Your task to perform on an android device: Install the Starbucks app Image 0: 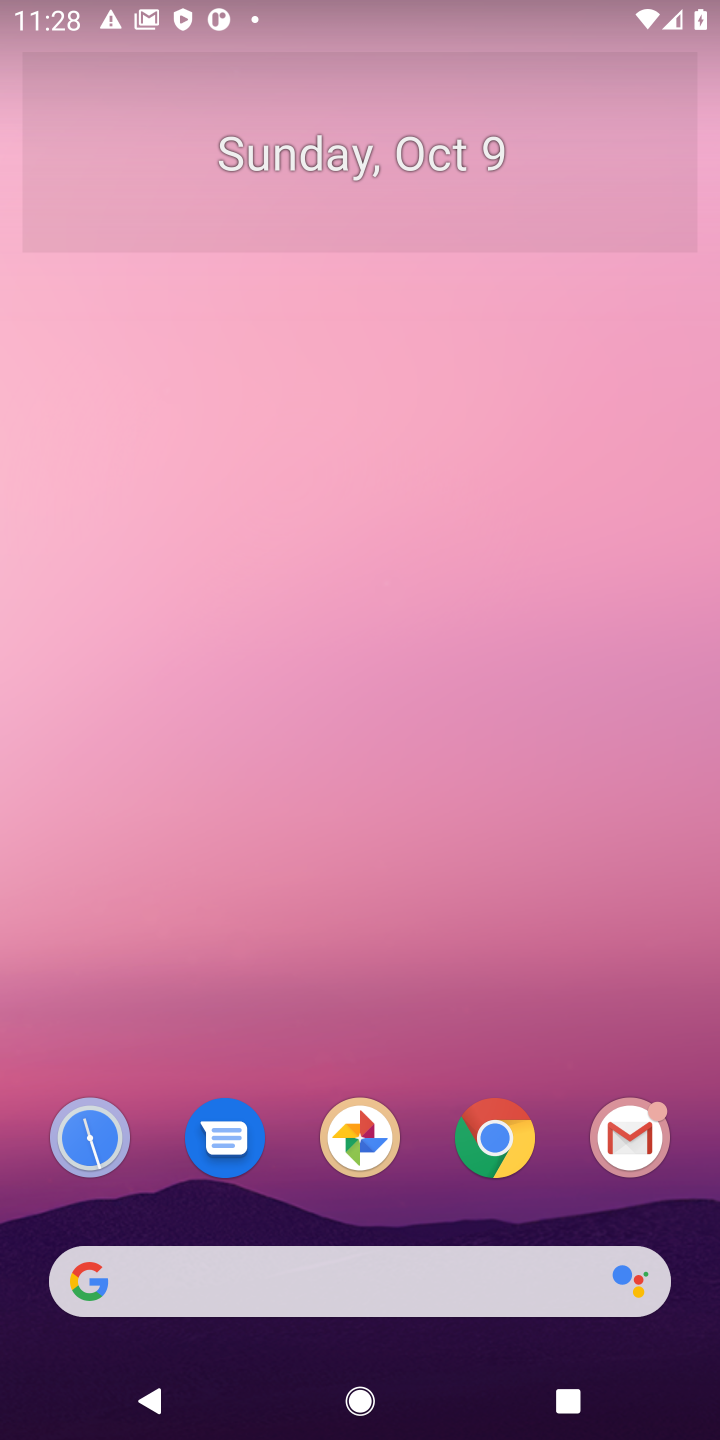
Step 0: drag from (393, 989) to (286, 18)
Your task to perform on an android device: Install the Starbucks app Image 1: 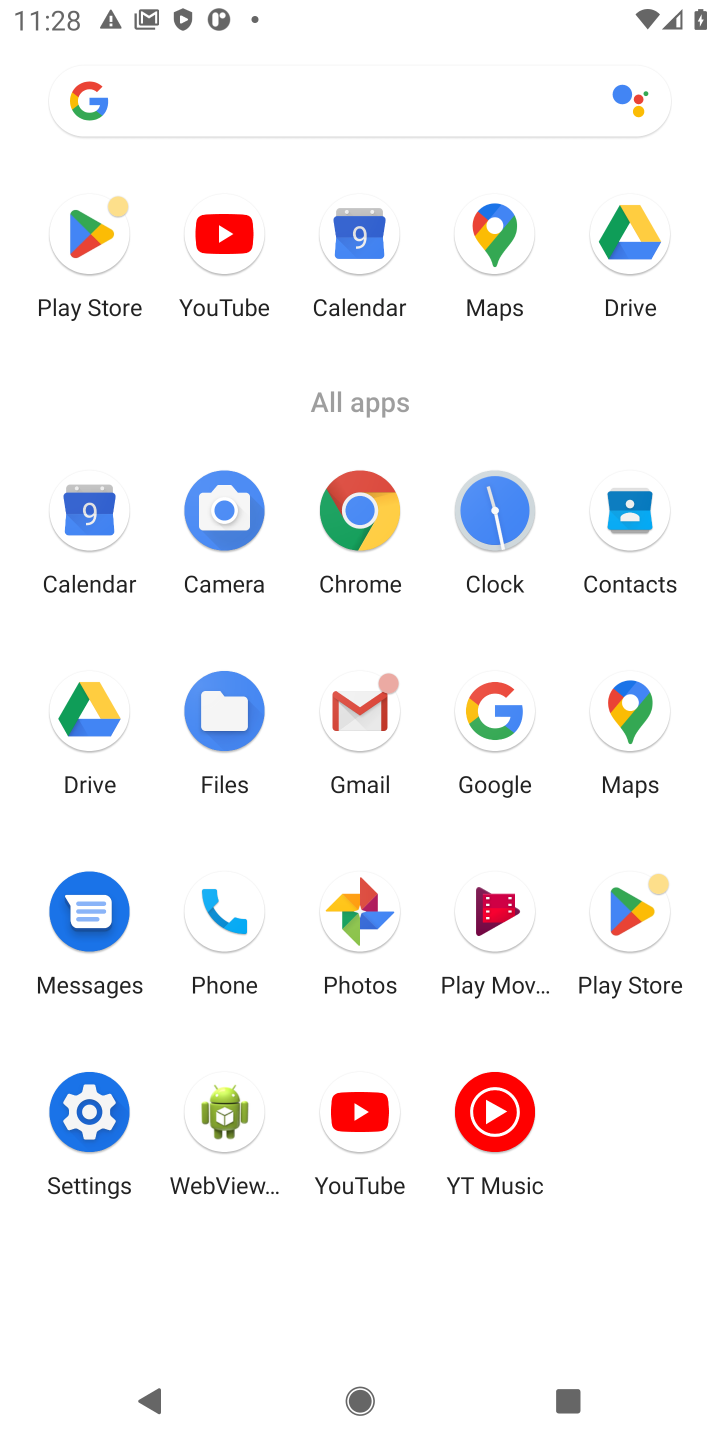
Step 1: click (618, 922)
Your task to perform on an android device: Install the Starbucks app Image 2: 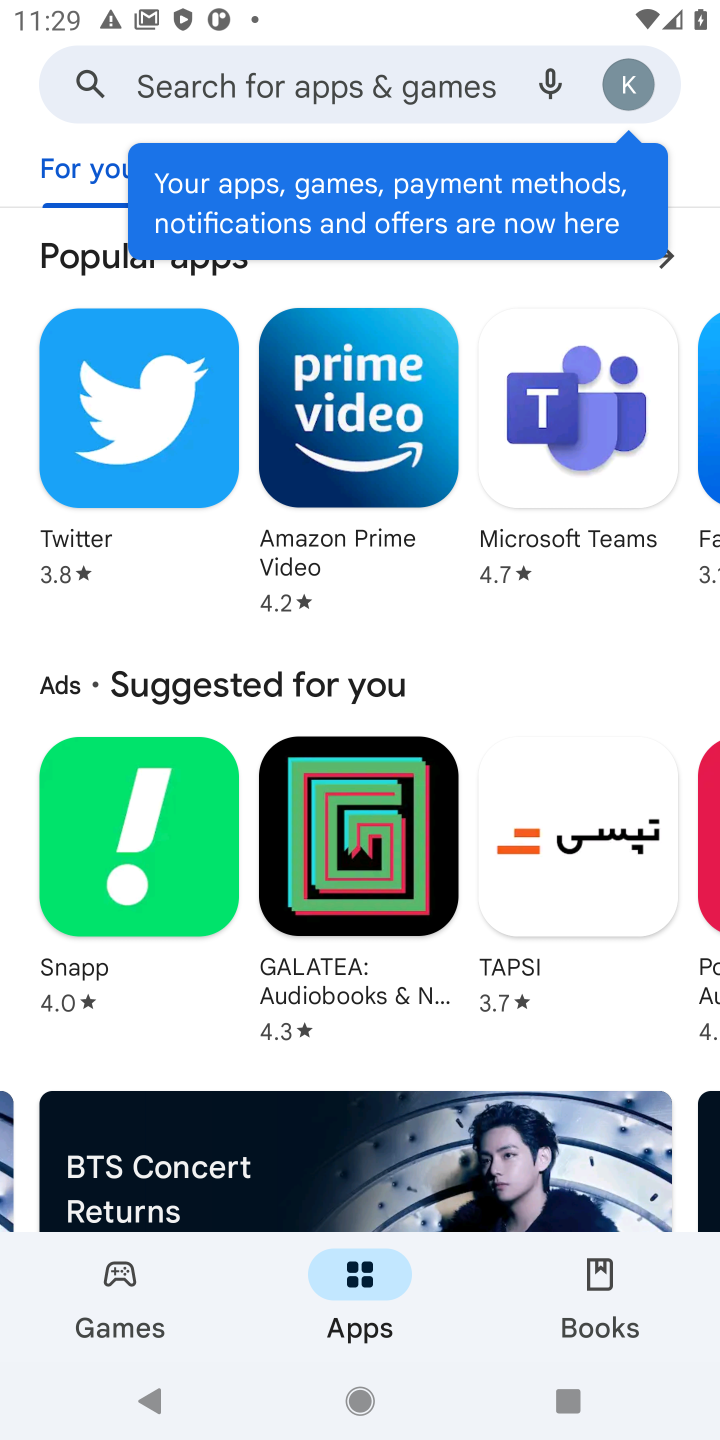
Step 2: click (347, 78)
Your task to perform on an android device: Install the Starbucks app Image 3: 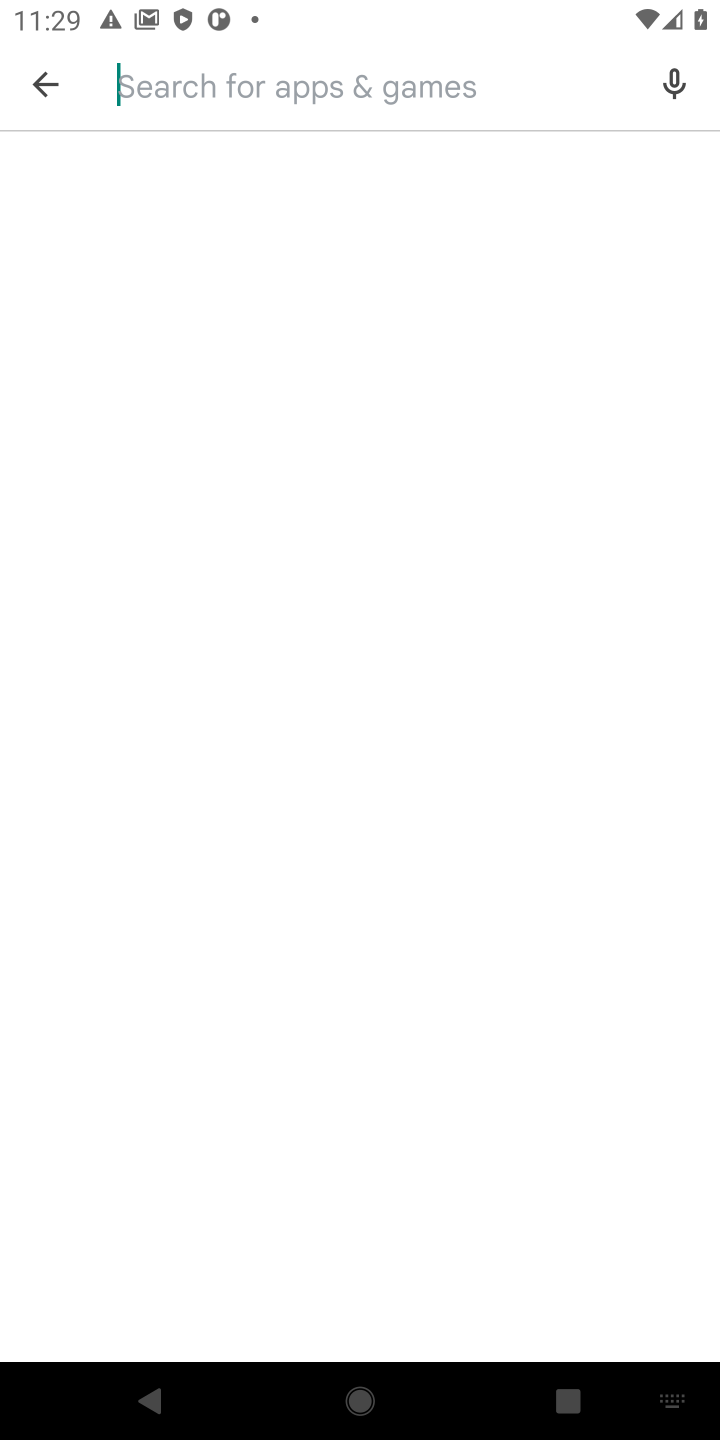
Step 3: type "starbucks "
Your task to perform on an android device: Install the Starbucks app Image 4: 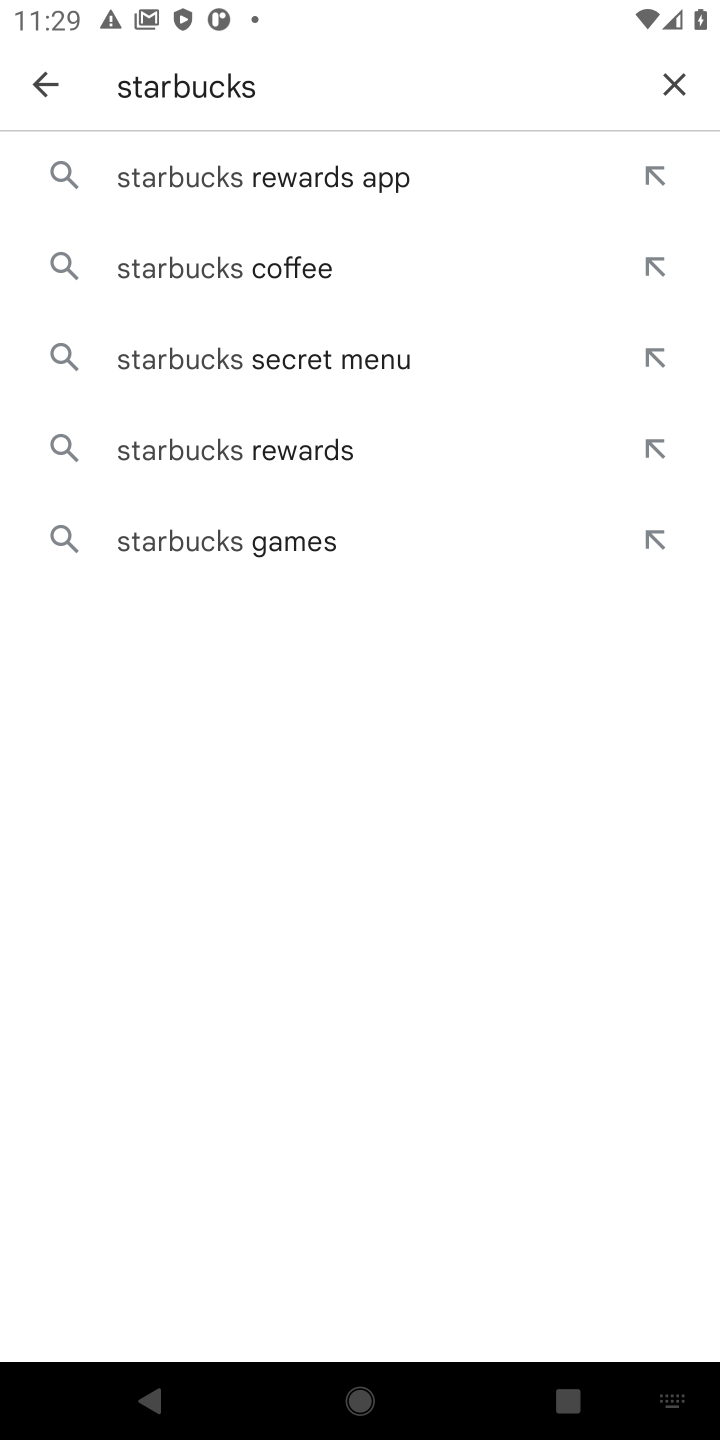
Step 4: press enter
Your task to perform on an android device: Install the Starbucks app Image 5: 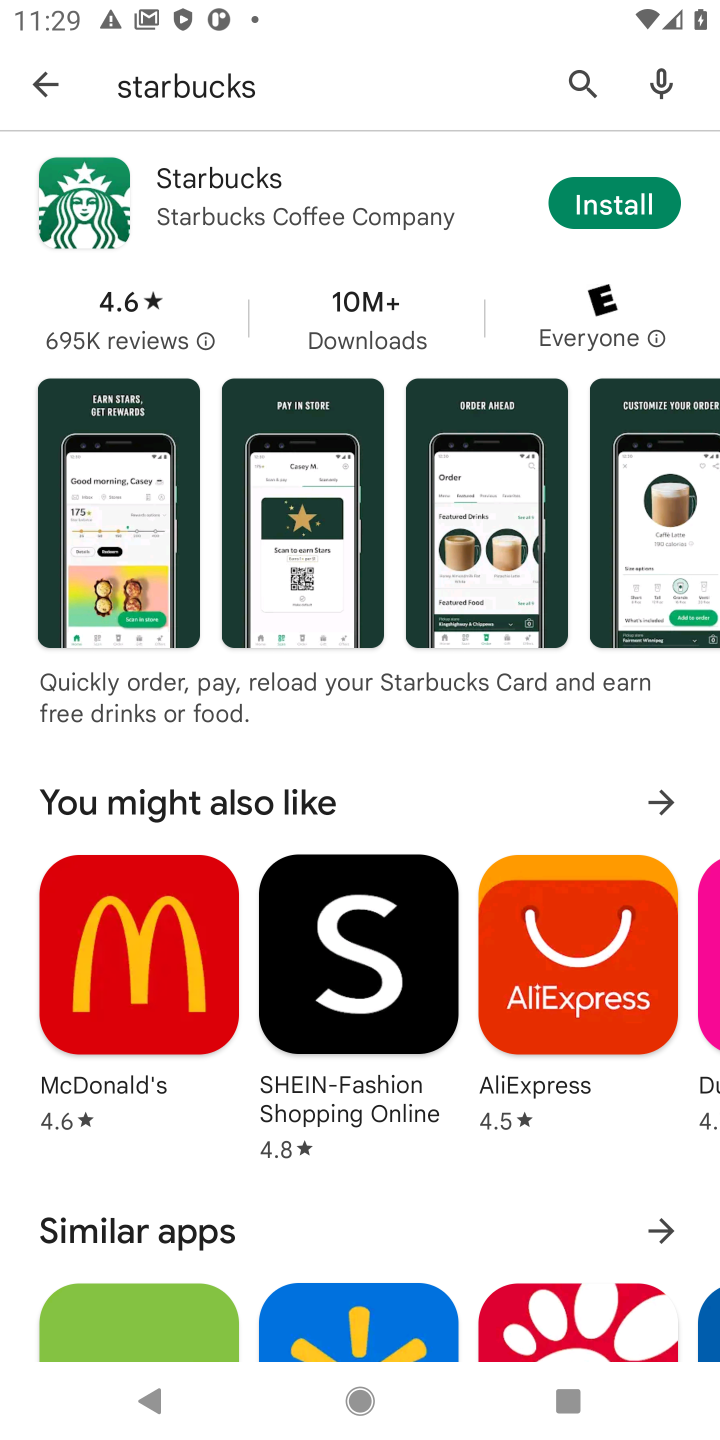
Step 5: click (623, 207)
Your task to perform on an android device: Install the Starbucks app Image 6: 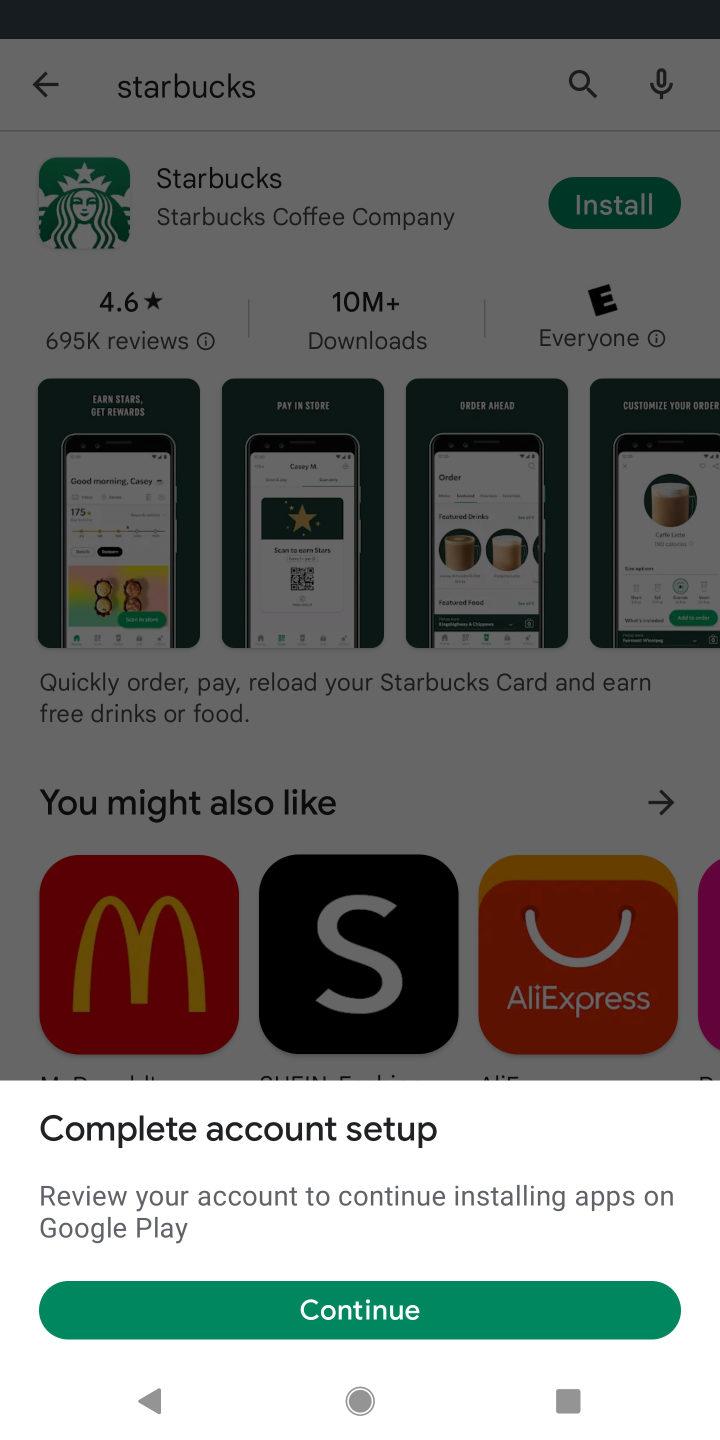
Step 6: click (380, 1293)
Your task to perform on an android device: Install the Starbucks app Image 7: 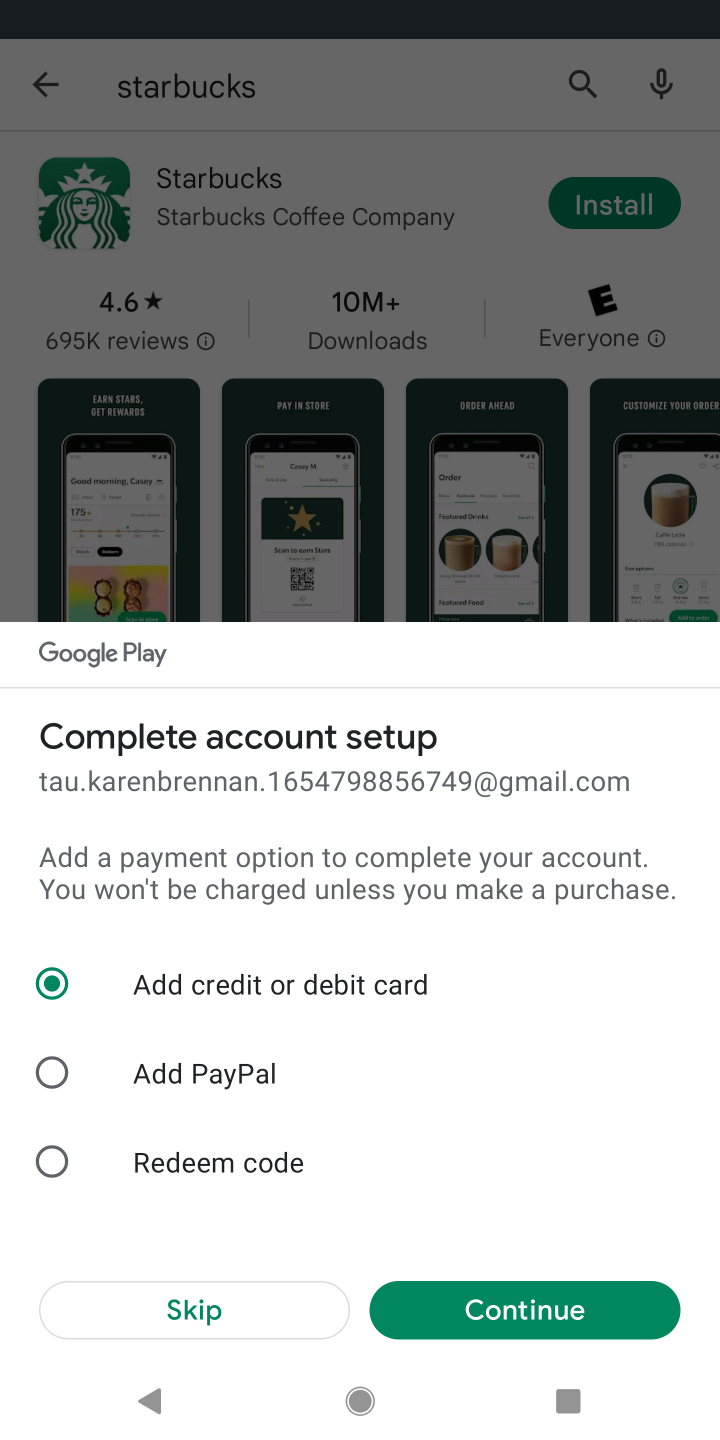
Step 7: click (312, 1291)
Your task to perform on an android device: Install the Starbucks app Image 8: 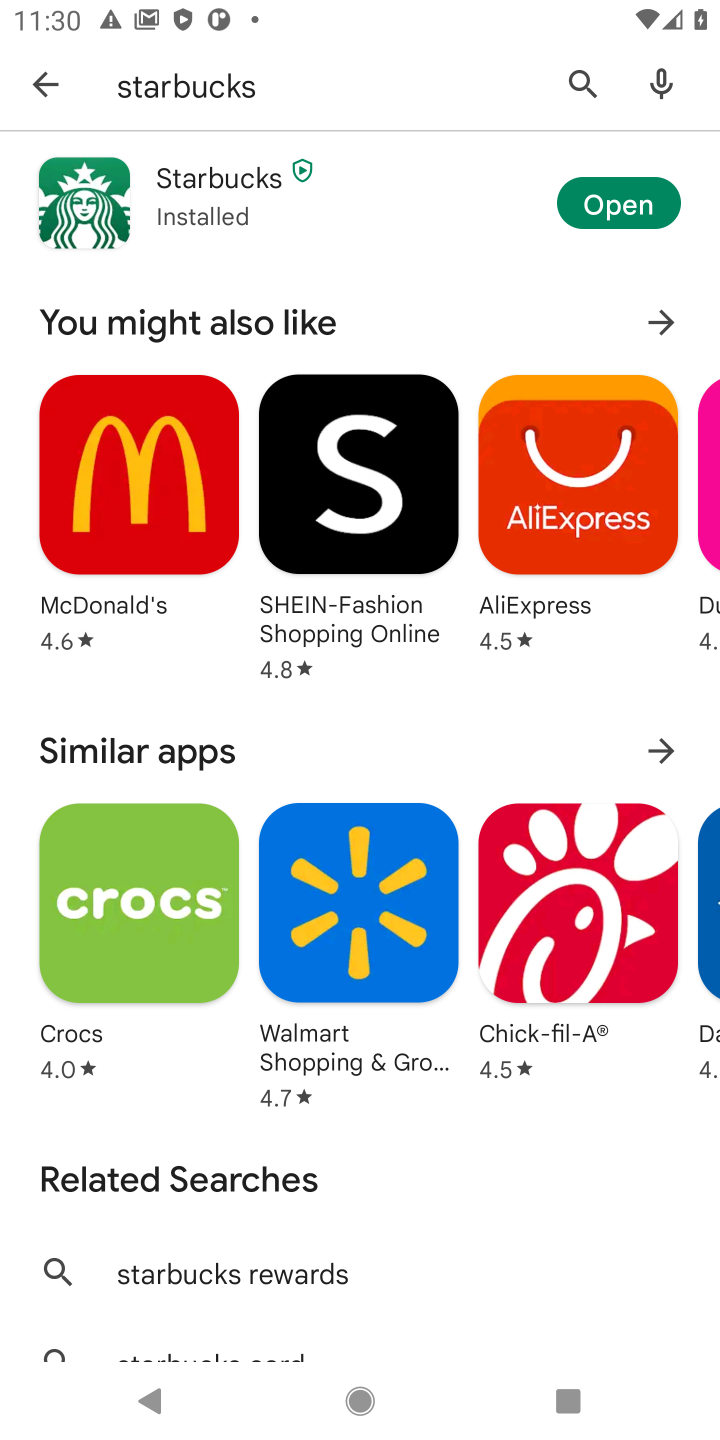
Step 8: task complete